Your task to perform on an android device: refresh tabs in the chrome app Image 0: 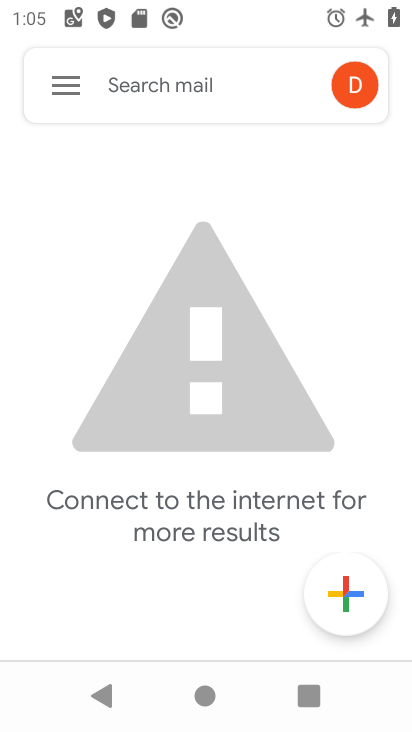
Step 0: press home button
Your task to perform on an android device: refresh tabs in the chrome app Image 1: 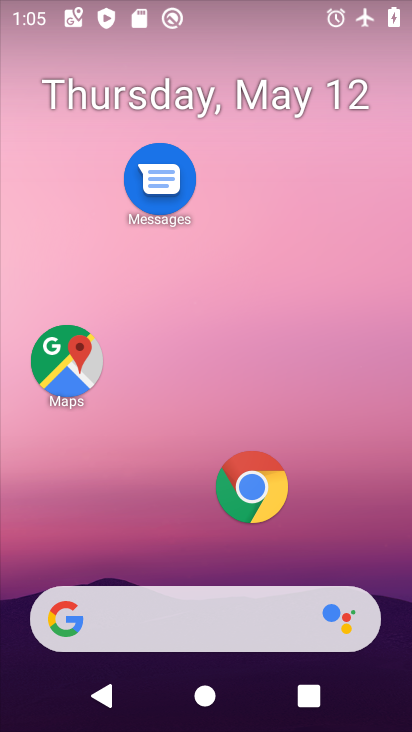
Step 1: click (244, 506)
Your task to perform on an android device: refresh tabs in the chrome app Image 2: 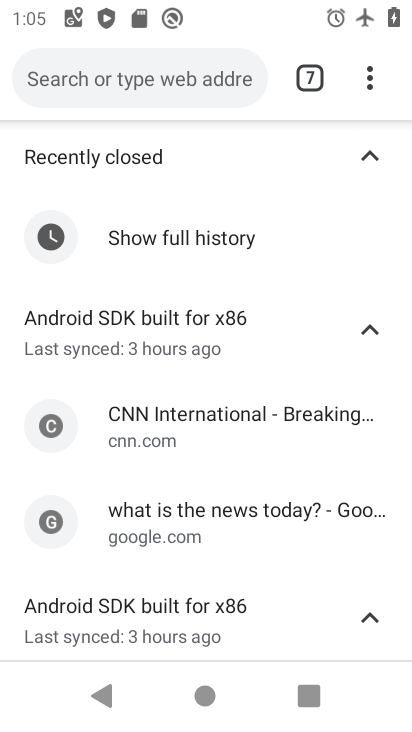
Step 2: click (363, 77)
Your task to perform on an android device: refresh tabs in the chrome app Image 3: 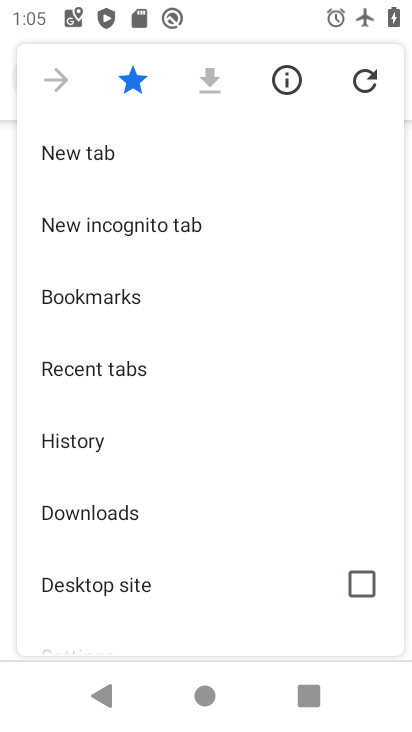
Step 3: click (375, 89)
Your task to perform on an android device: refresh tabs in the chrome app Image 4: 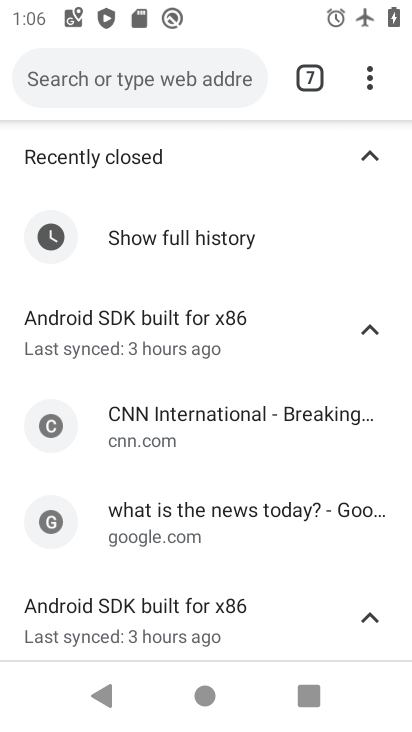
Step 4: task complete